Your task to perform on an android device: change alarm snooze length Image 0: 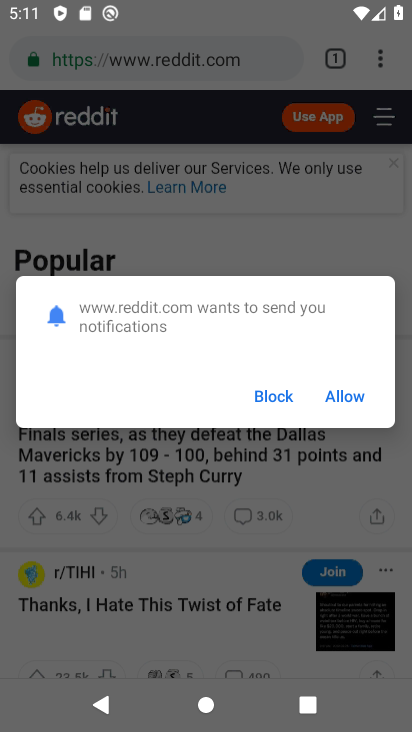
Step 0: press home button
Your task to perform on an android device: change alarm snooze length Image 1: 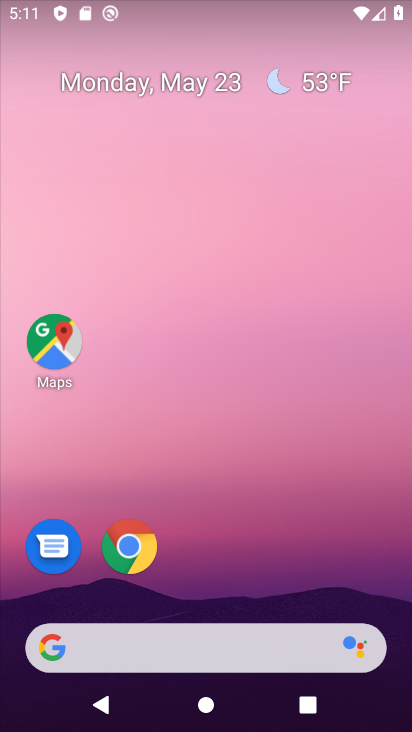
Step 1: drag from (271, 579) to (239, 37)
Your task to perform on an android device: change alarm snooze length Image 2: 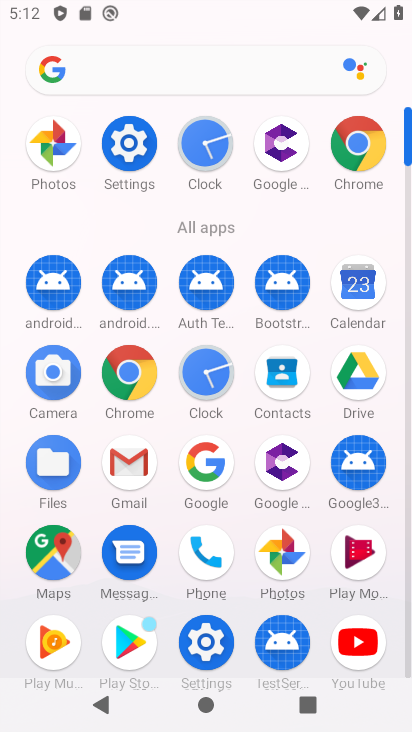
Step 2: click (212, 144)
Your task to perform on an android device: change alarm snooze length Image 3: 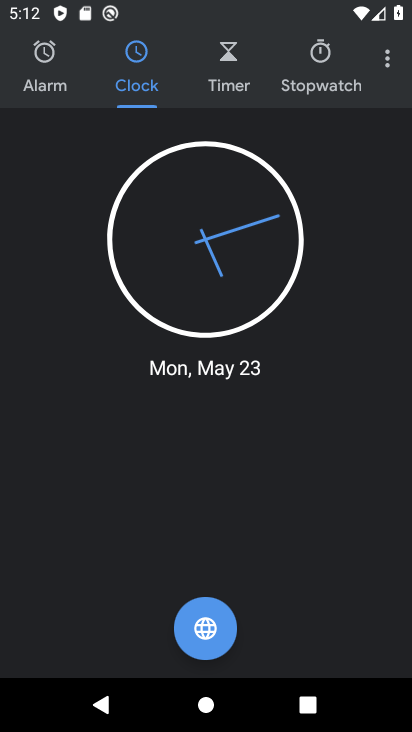
Step 3: click (386, 56)
Your task to perform on an android device: change alarm snooze length Image 4: 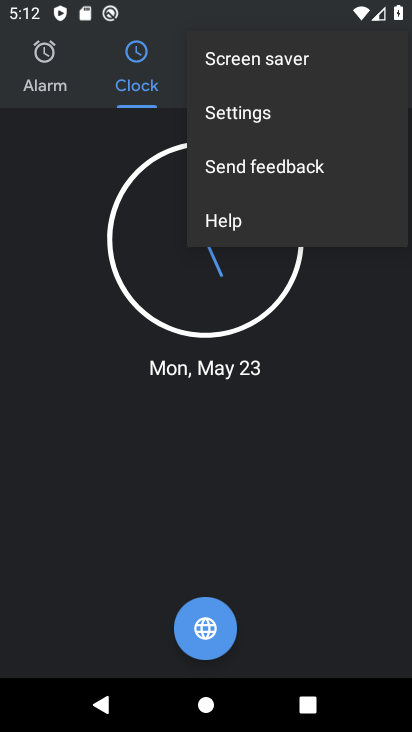
Step 4: click (272, 117)
Your task to perform on an android device: change alarm snooze length Image 5: 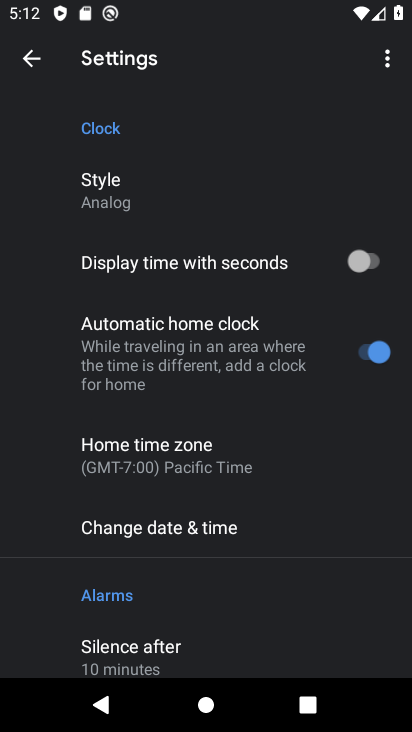
Step 5: drag from (289, 570) to (247, 166)
Your task to perform on an android device: change alarm snooze length Image 6: 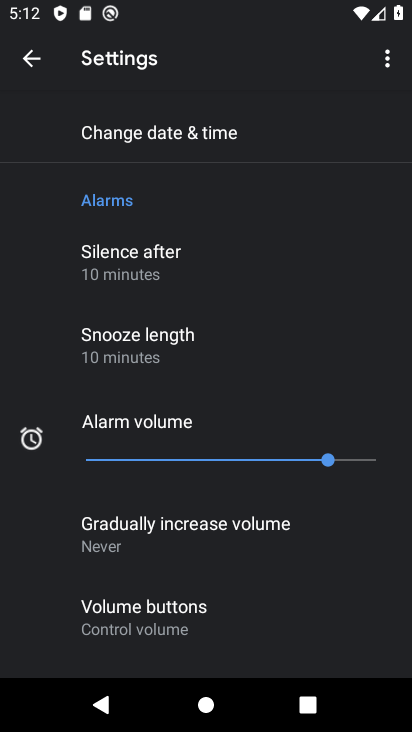
Step 6: drag from (252, 583) to (243, 226)
Your task to perform on an android device: change alarm snooze length Image 7: 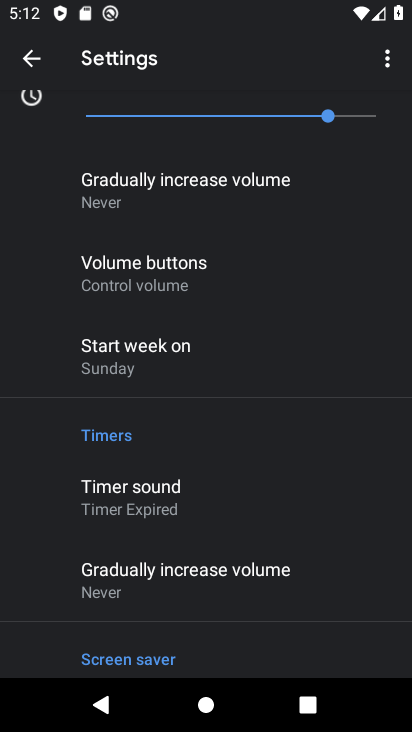
Step 7: drag from (254, 213) to (265, 566)
Your task to perform on an android device: change alarm snooze length Image 8: 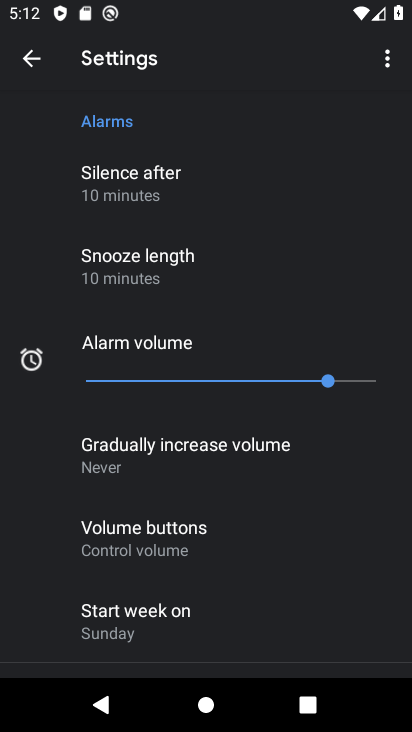
Step 8: click (160, 265)
Your task to perform on an android device: change alarm snooze length Image 9: 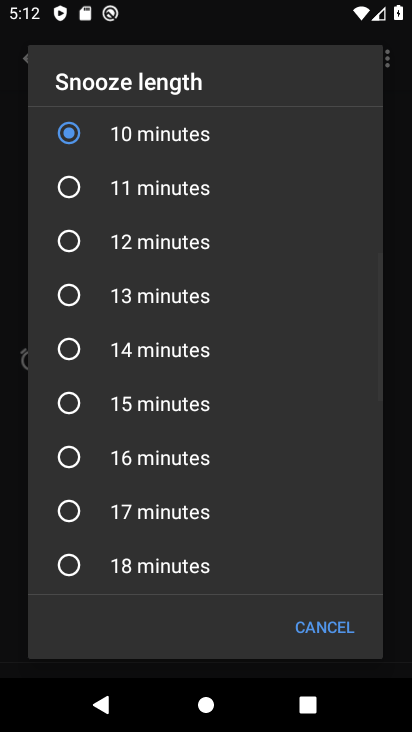
Step 9: drag from (189, 169) to (214, 459)
Your task to perform on an android device: change alarm snooze length Image 10: 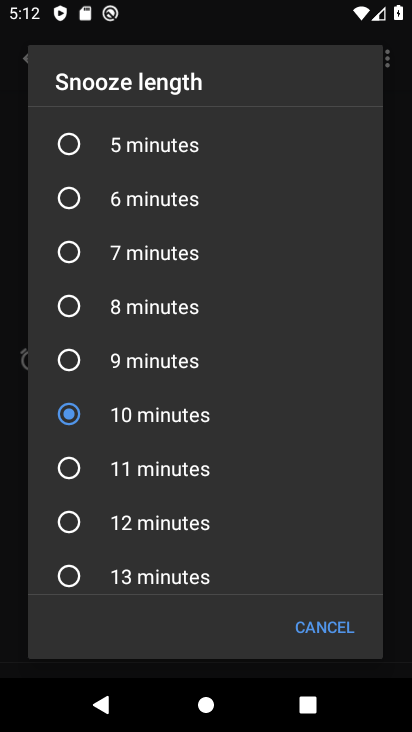
Step 10: click (69, 144)
Your task to perform on an android device: change alarm snooze length Image 11: 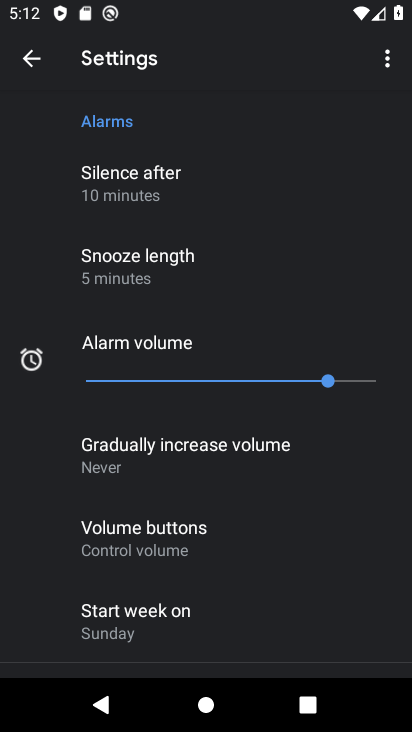
Step 11: click (109, 202)
Your task to perform on an android device: change alarm snooze length Image 12: 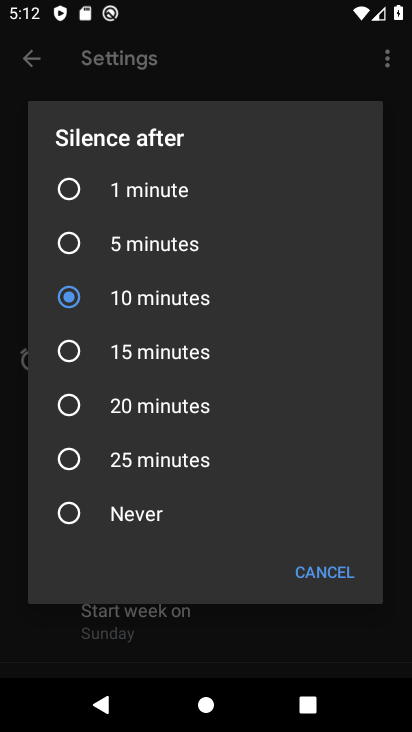
Step 12: click (72, 252)
Your task to perform on an android device: change alarm snooze length Image 13: 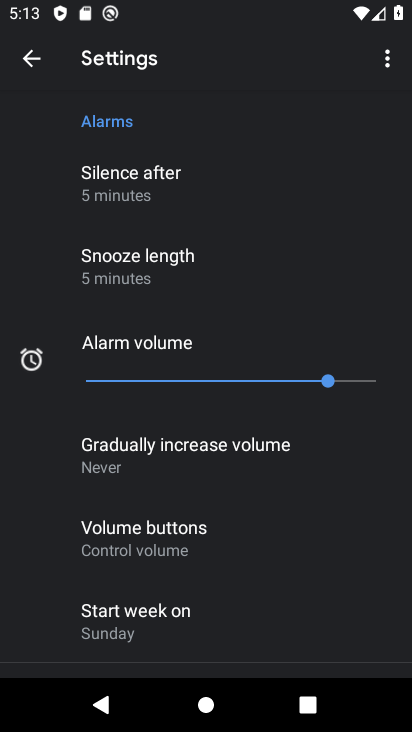
Step 13: task complete